Your task to perform on an android device: change the clock display to digital Image 0: 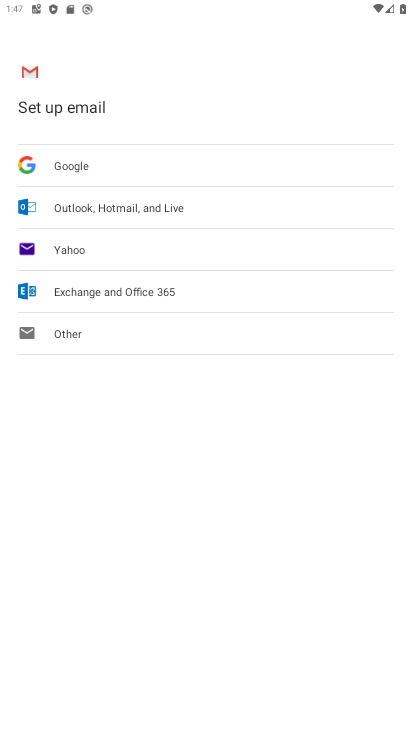
Step 0: press home button
Your task to perform on an android device: change the clock display to digital Image 1: 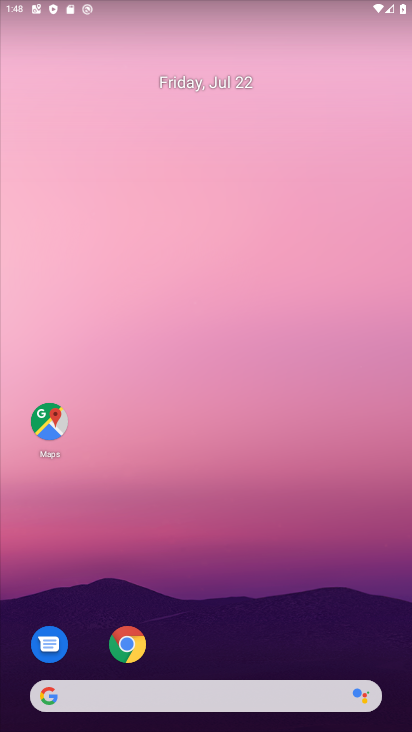
Step 1: drag from (221, 659) to (237, 212)
Your task to perform on an android device: change the clock display to digital Image 2: 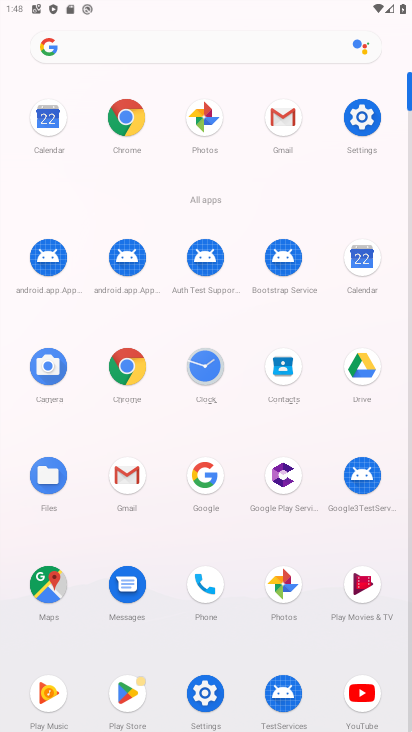
Step 2: click (192, 358)
Your task to perform on an android device: change the clock display to digital Image 3: 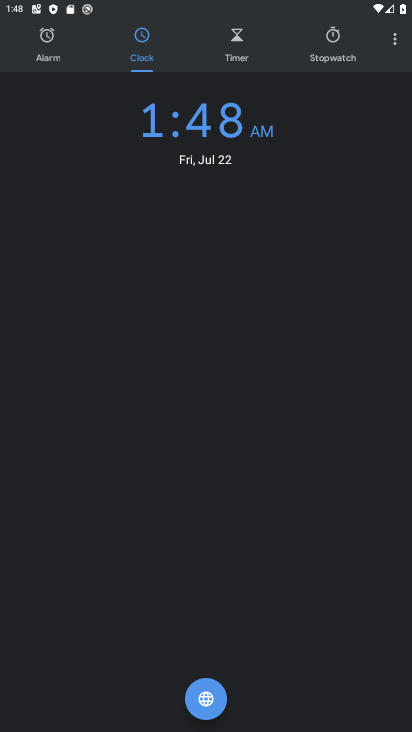
Step 3: click (394, 27)
Your task to perform on an android device: change the clock display to digital Image 4: 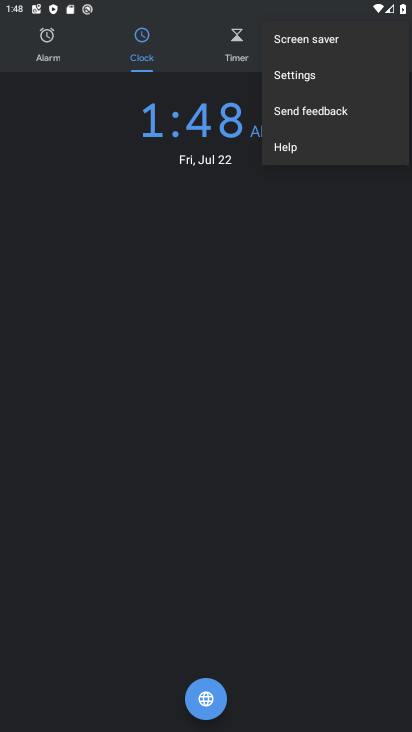
Step 4: click (273, 85)
Your task to perform on an android device: change the clock display to digital Image 5: 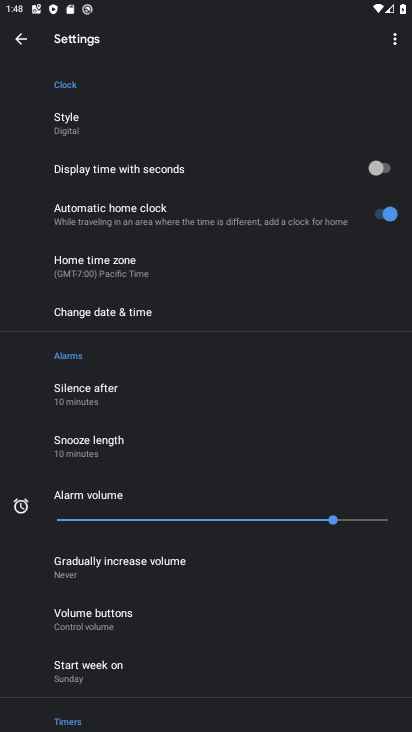
Step 5: task complete